Your task to perform on an android device: Open Google Chrome and open the bookmarks view Image 0: 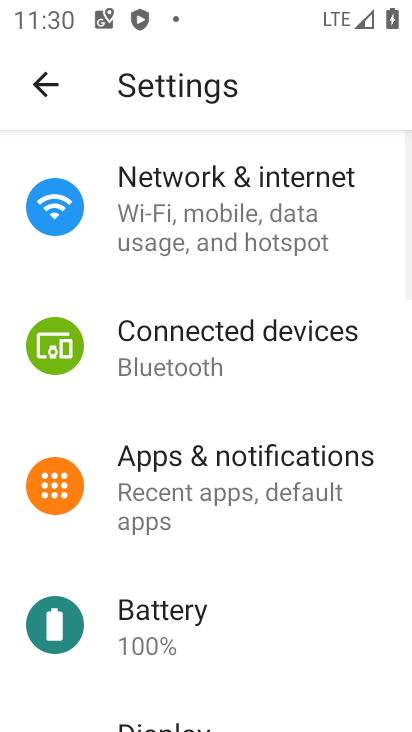
Step 0: press home button
Your task to perform on an android device: Open Google Chrome and open the bookmarks view Image 1: 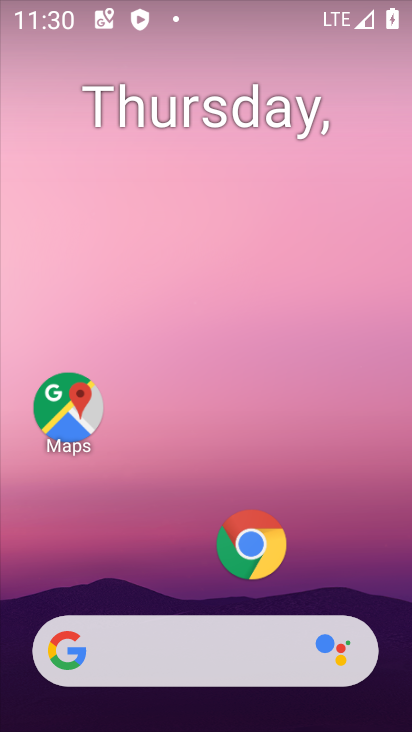
Step 1: click (249, 559)
Your task to perform on an android device: Open Google Chrome and open the bookmarks view Image 2: 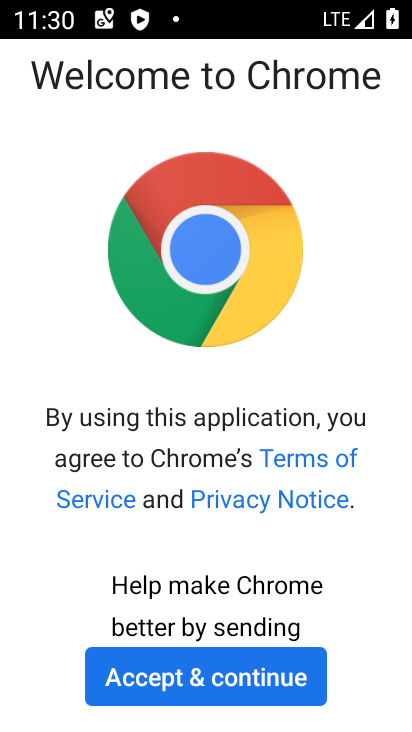
Step 2: click (245, 695)
Your task to perform on an android device: Open Google Chrome and open the bookmarks view Image 3: 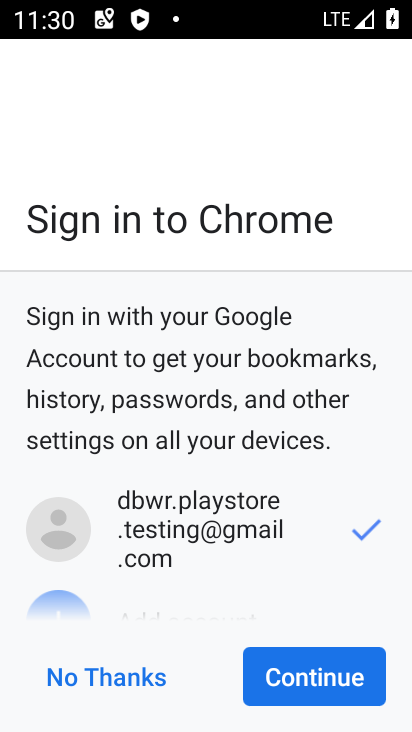
Step 3: click (336, 687)
Your task to perform on an android device: Open Google Chrome and open the bookmarks view Image 4: 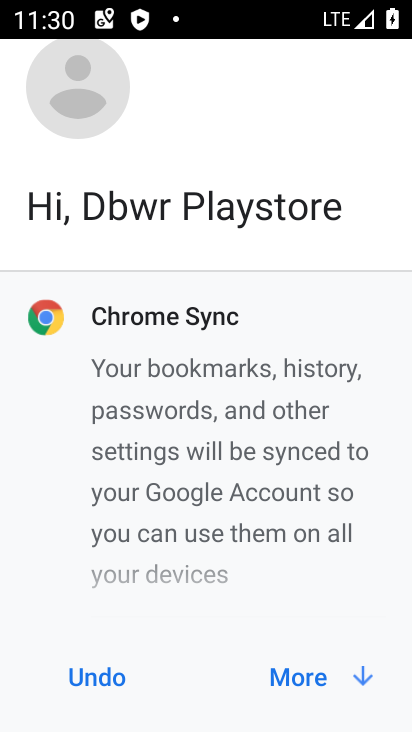
Step 4: click (360, 698)
Your task to perform on an android device: Open Google Chrome and open the bookmarks view Image 5: 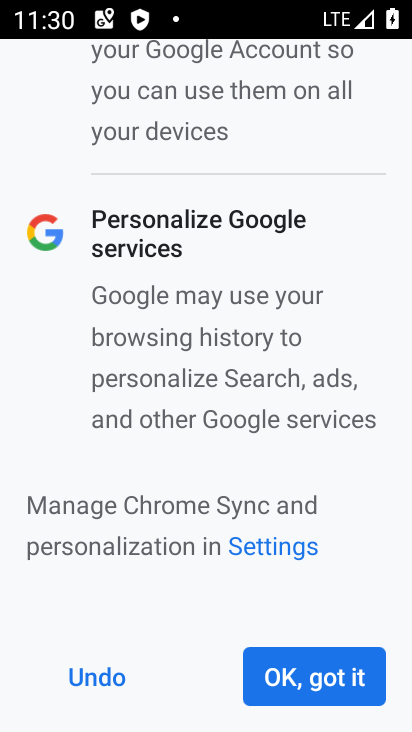
Step 5: click (363, 677)
Your task to perform on an android device: Open Google Chrome and open the bookmarks view Image 6: 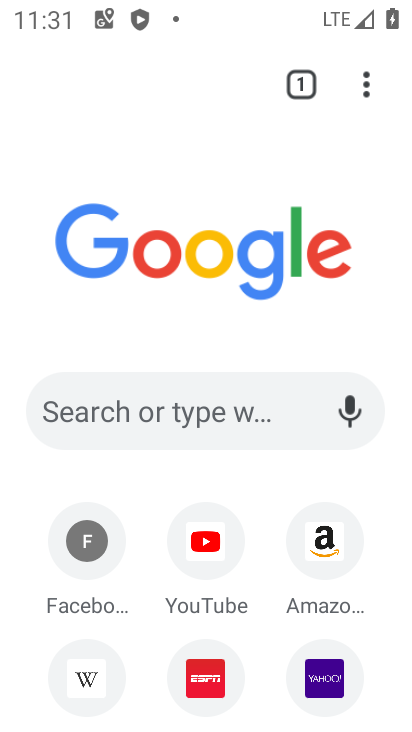
Step 6: click (360, 88)
Your task to perform on an android device: Open Google Chrome and open the bookmarks view Image 7: 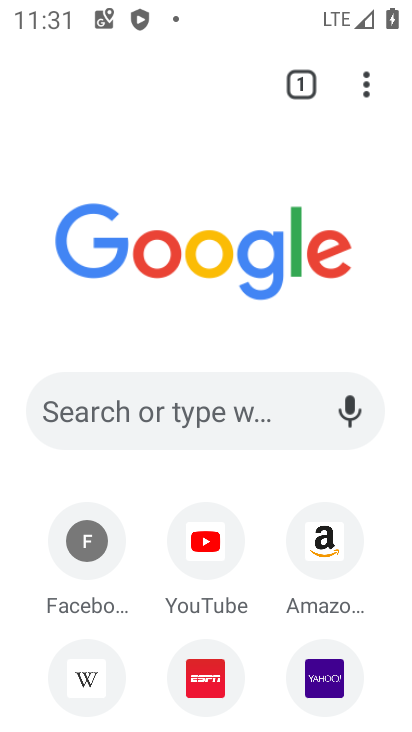
Step 7: task complete